Your task to perform on an android device: turn off javascript in the chrome app Image 0: 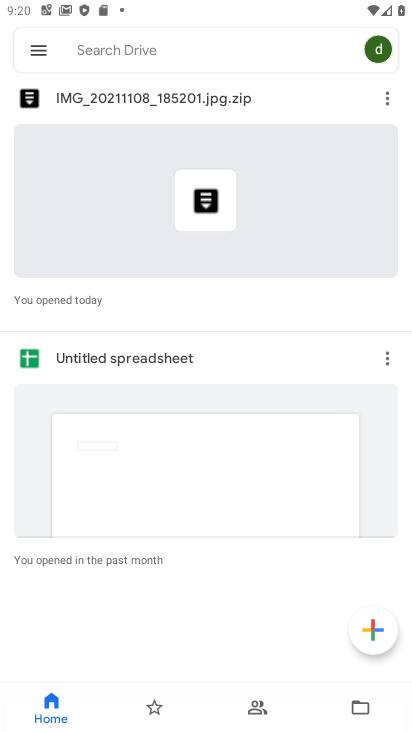
Step 0: press home button
Your task to perform on an android device: turn off javascript in the chrome app Image 1: 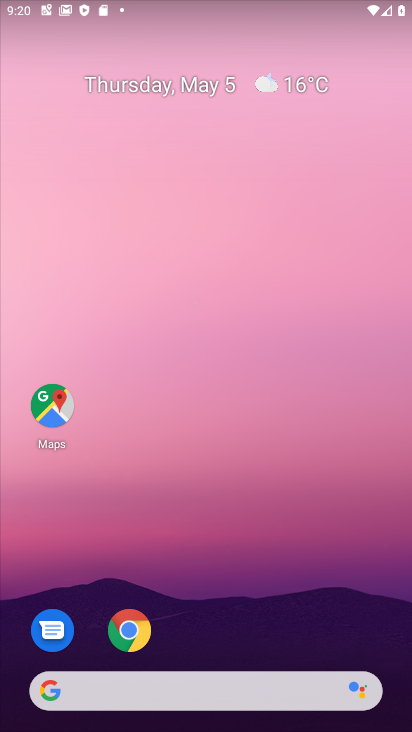
Step 1: click (124, 631)
Your task to perform on an android device: turn off javascript in the chrome app Image 2: 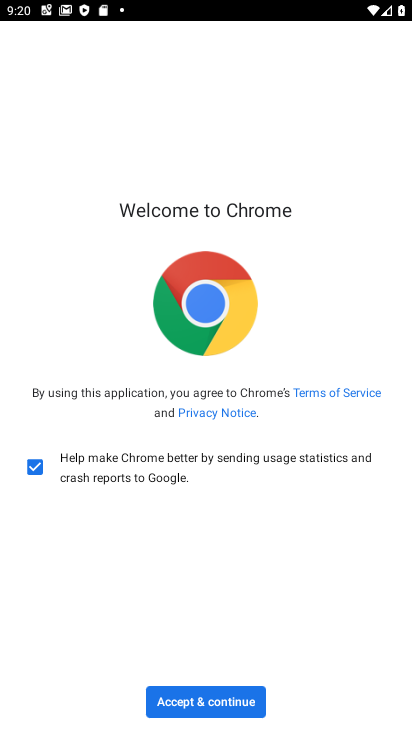
Step 2: click (196, 695)
Your task to perform on an android device: turn off javascript in the chrome app Image 3: 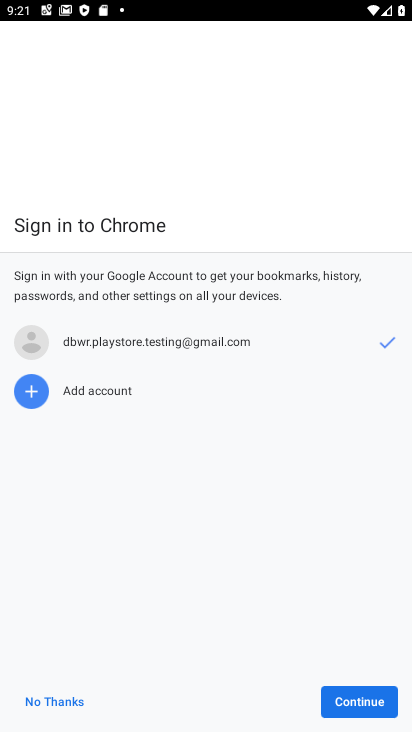
Step 3: click (346, 691)
Your task to perform on an android device: turn off javascript in the chrome app Image 4: 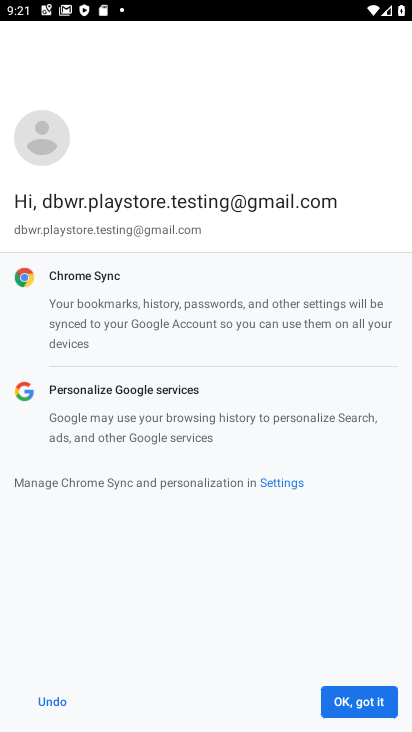
Step 4: click (345, 710)
Your task to perform on an android device: turn off javascript in the chrome app Image 5: 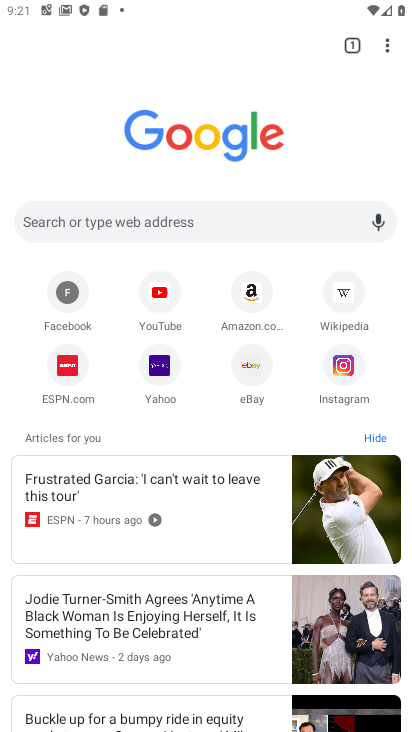
Step 5: click (383, 44)
Your task to perform on an android device: turn off javascript in the chrome app Image 6: 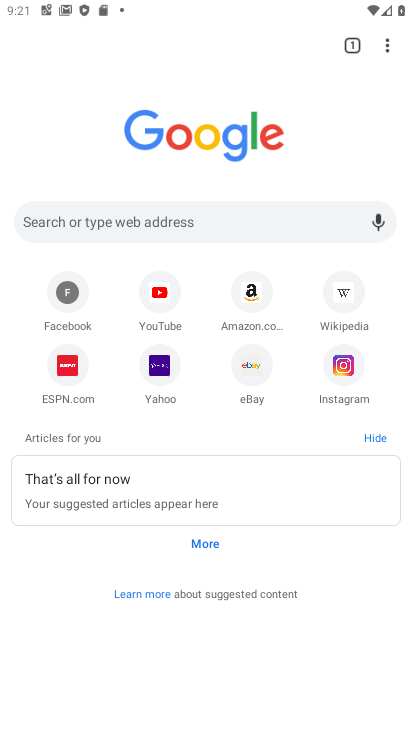
Step 6: click (388, 52)
Your task to perform on an android device: turn off javascript in the chrome app Image 7: 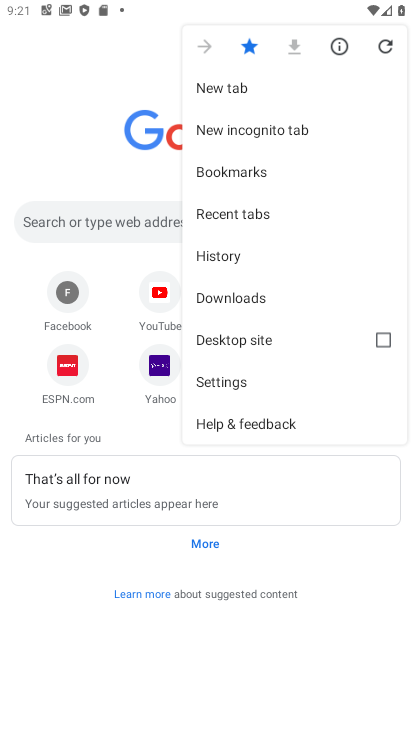
Step 7: click (252, 390)
Your task to perform on an android device: turn off javascript in the chrome app Image 8: 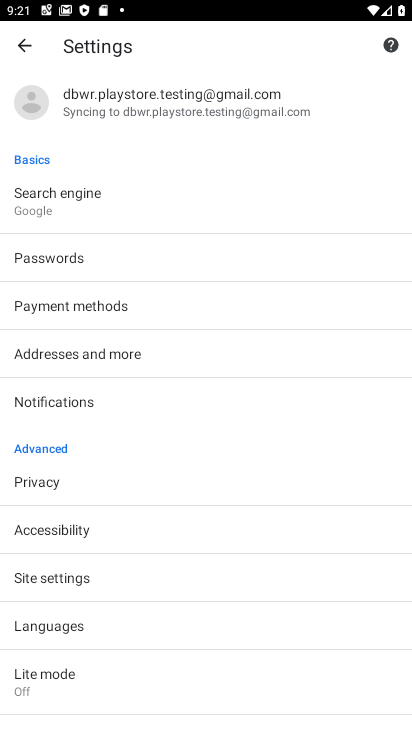
Step 8: drag from (193, 659) to (160, 473)
Your task to perform on an android device: turn off javascript in the chrome app Image 9: 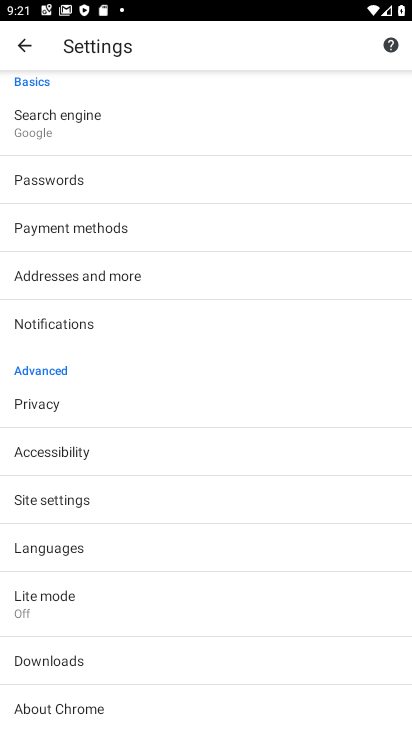
Step 9: click (82, 495)
Your task to perform on an android device: turn off javascript in the chrome app Image 10: 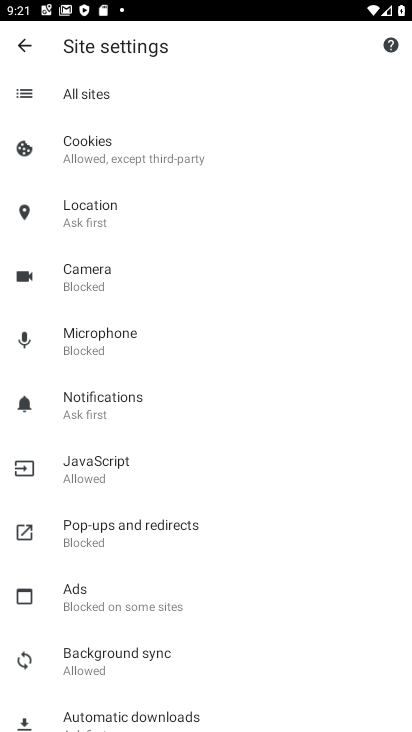
Step 10: click (122, 467)
Your task to perform on an android device: turn off javascript in the chrome app Image 11: 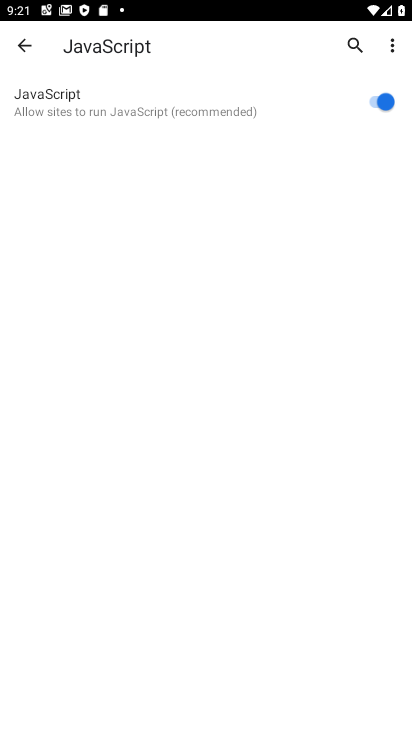
Step 11: click (377, 103)
Your task to perform on an android device: turn off javascript in the chrome app Image 12: 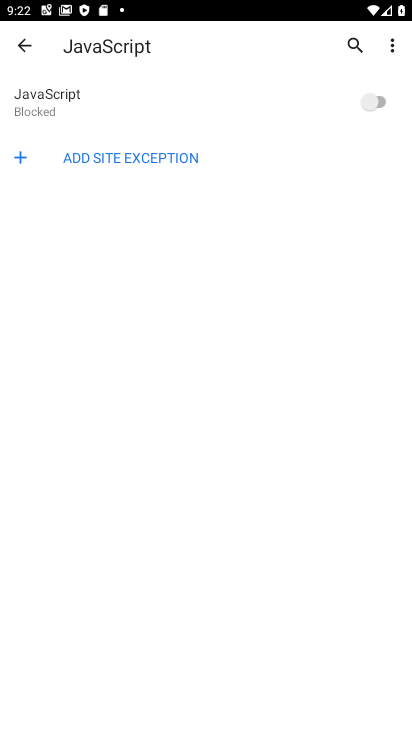
Step 12: task complete